Your task to perform on an android device: Go to display settings Image 0: 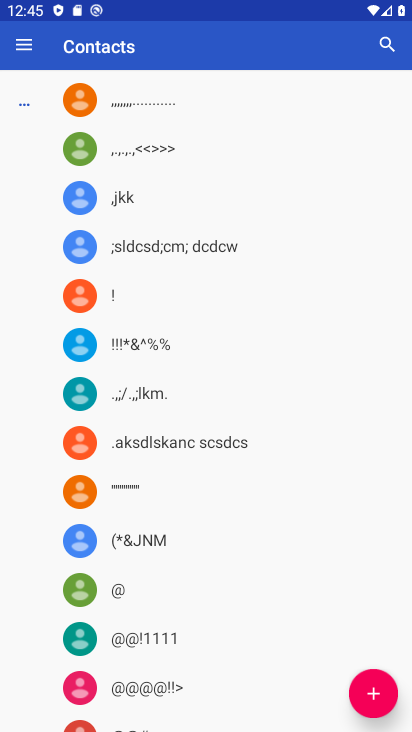
Step 0: press back button
Your task to perform on an android device: Go to display settings Image 1: 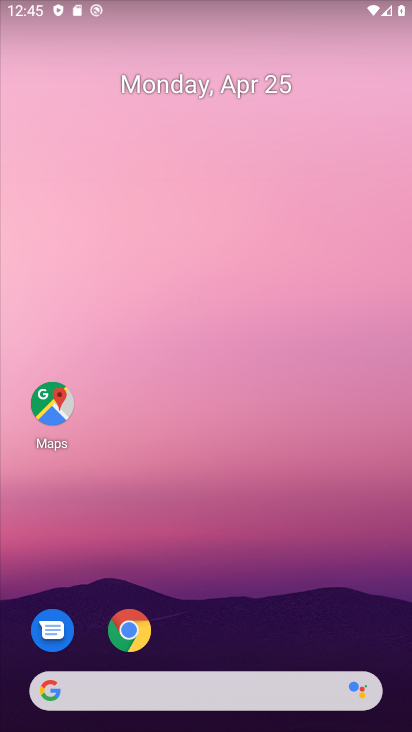
Step 1: drag from (183, 642) to (294, 40)
Your task to perform on an android device: Go to display settings Image 2: 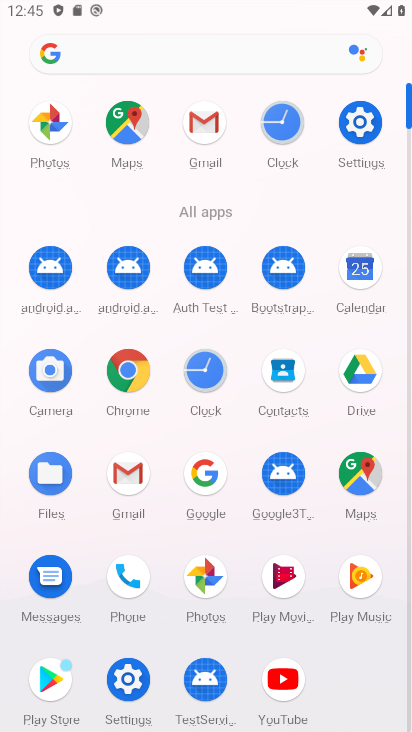
Step 2: click (130, 680)
Your task to perform on an android device: Go to display settings Image 3: 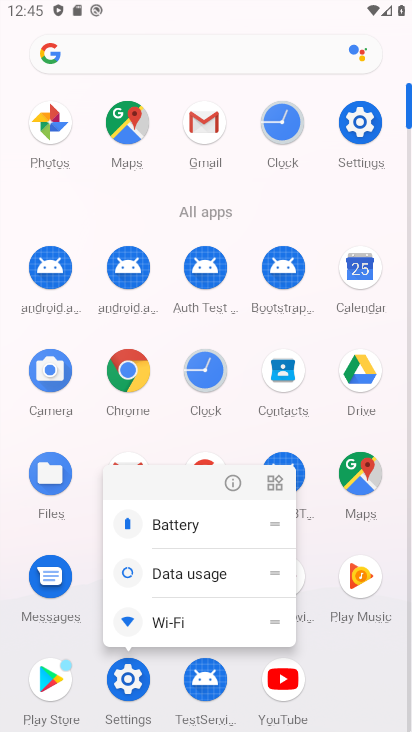
Step 3: click (129, 699)
Your task to perform on an android device: Go to display settings Image 4: 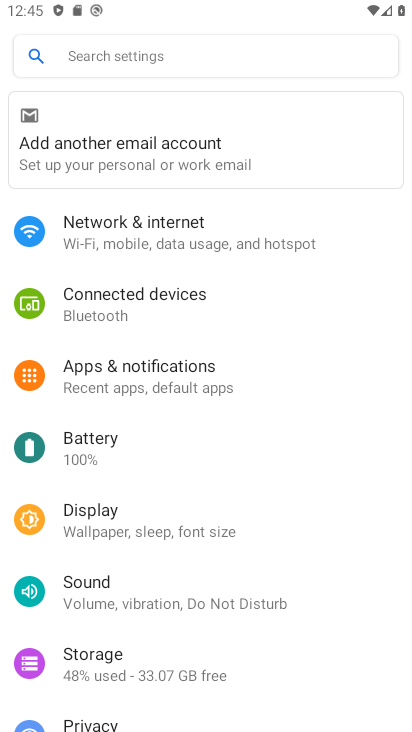
Step 4: click (108, 515)
Your task to perform on an android device: Go to display settings Image 5: 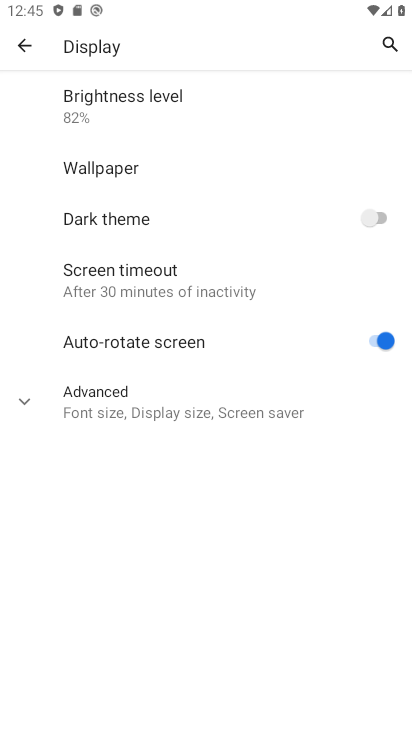
Step 5: click (138, 410)
Your task to perform on an android device: Go to display settings Image 6: 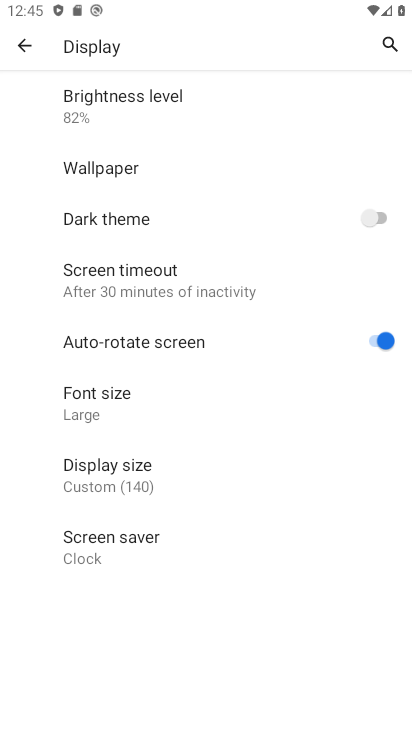
Step 6: task complete